Your task to perform on an android device: Open accessibility settings Image 0: 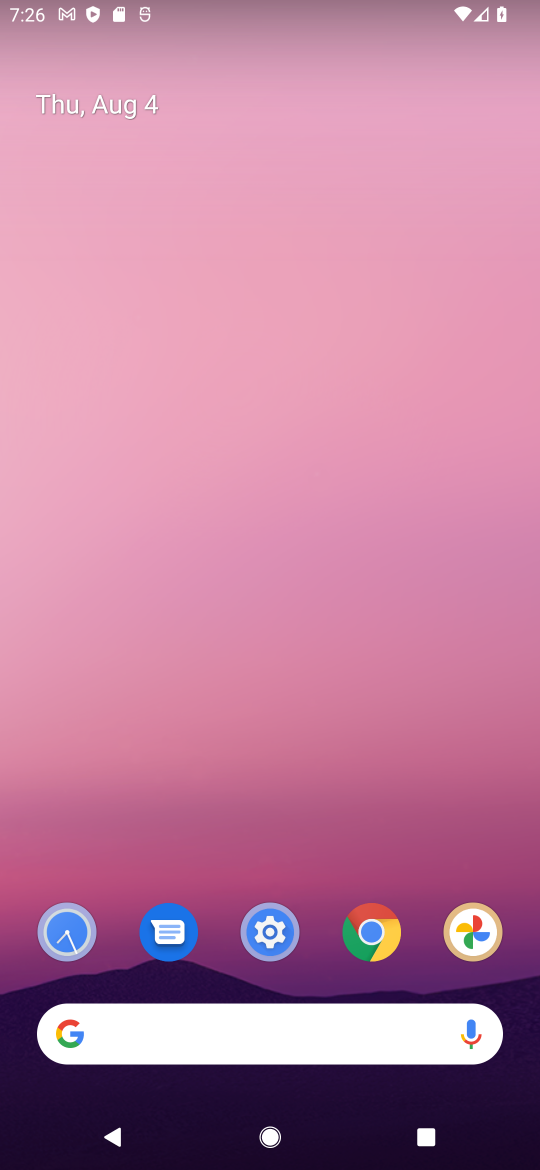
Step 0: press back button
Your task to perform on an android device: Open accessibility settings Image 1: 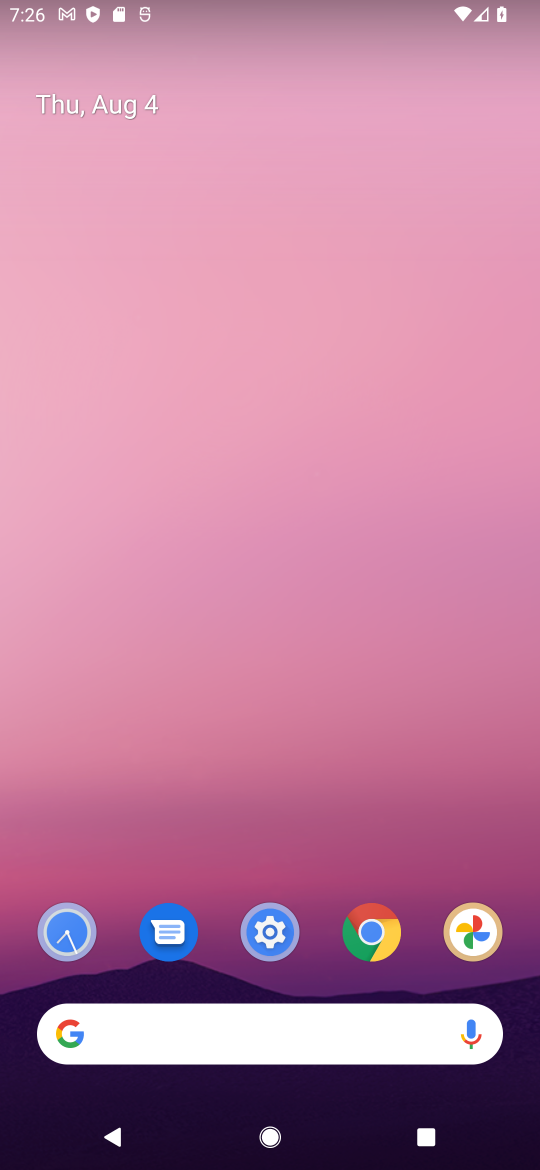
Step 1: drag from (228, 800) to (218, 245)
Your task to perform on an android device: Open accessibility settings Image 2: 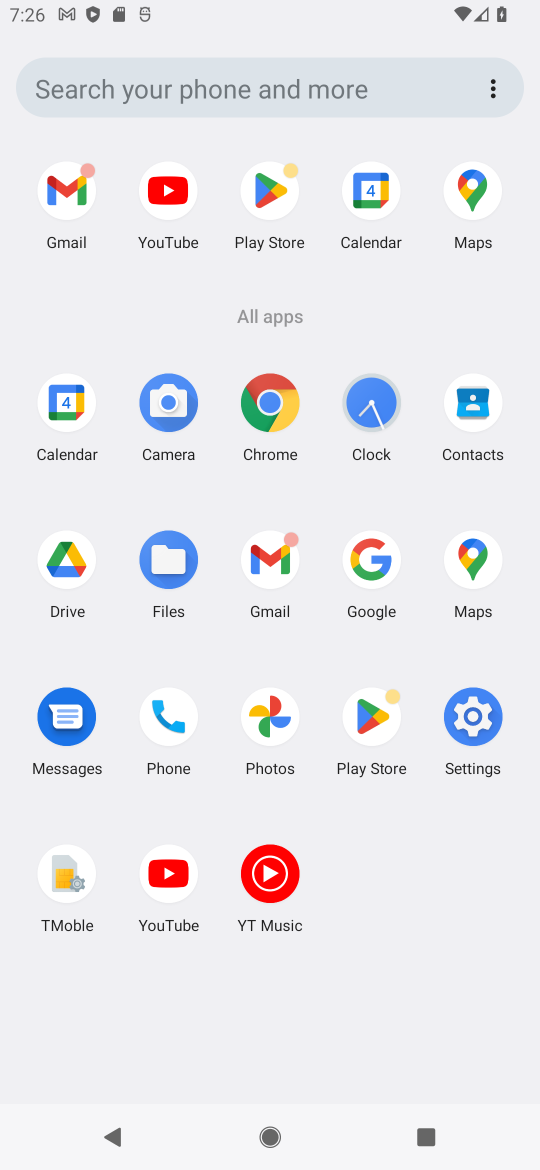
Step 2: click (473, 716)
Your task to perform on an android device: Open accessibility settings Image 3: 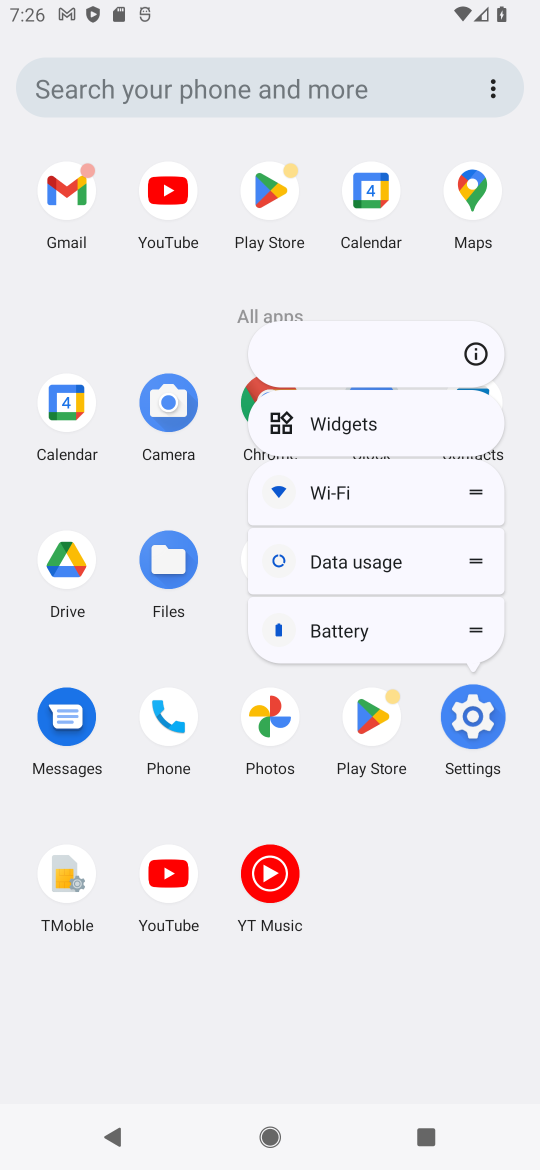
Step 3: click (471, 714)
Your task to perform on an android device: Open accessibility settings Image 4: 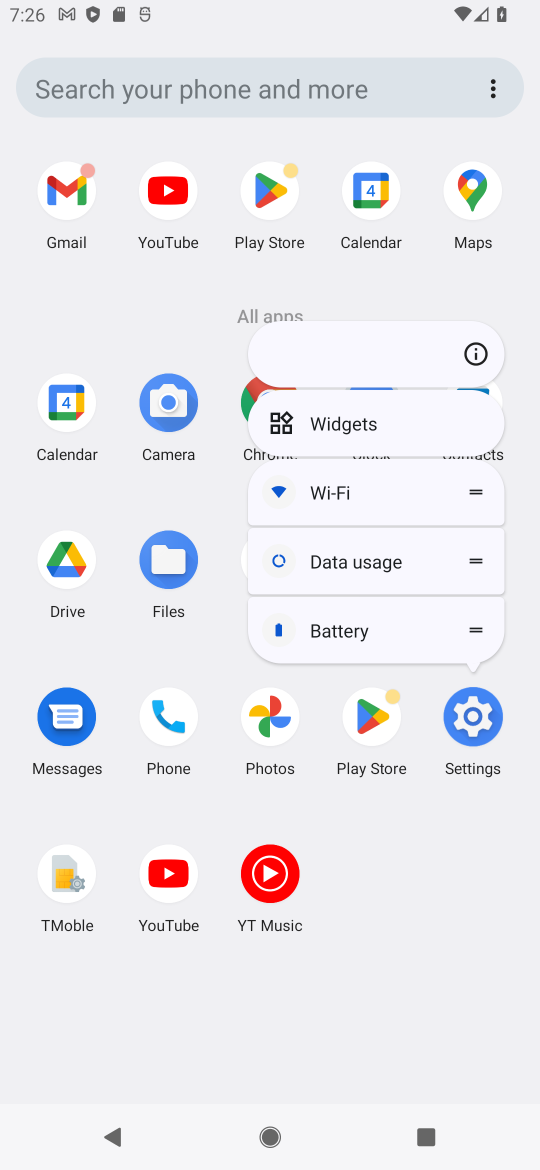
Step 4: click (471, 714)
Your task to perform on an android device: Open accessibility settings Image 5: 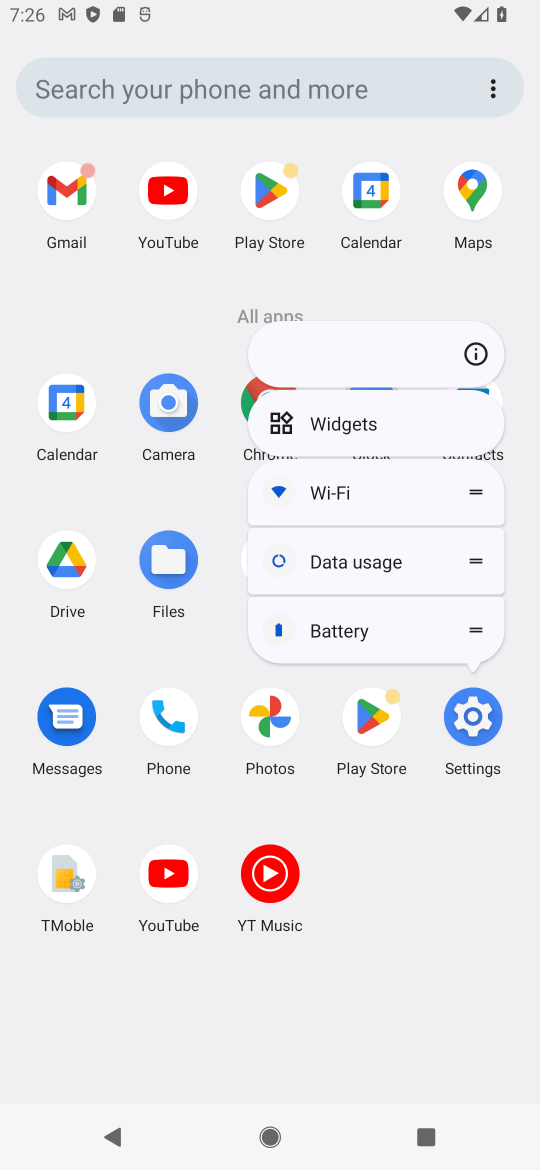
Step 5: click (366, 627)
Your task to perform on an android device: Open accessibility settings Image 6: 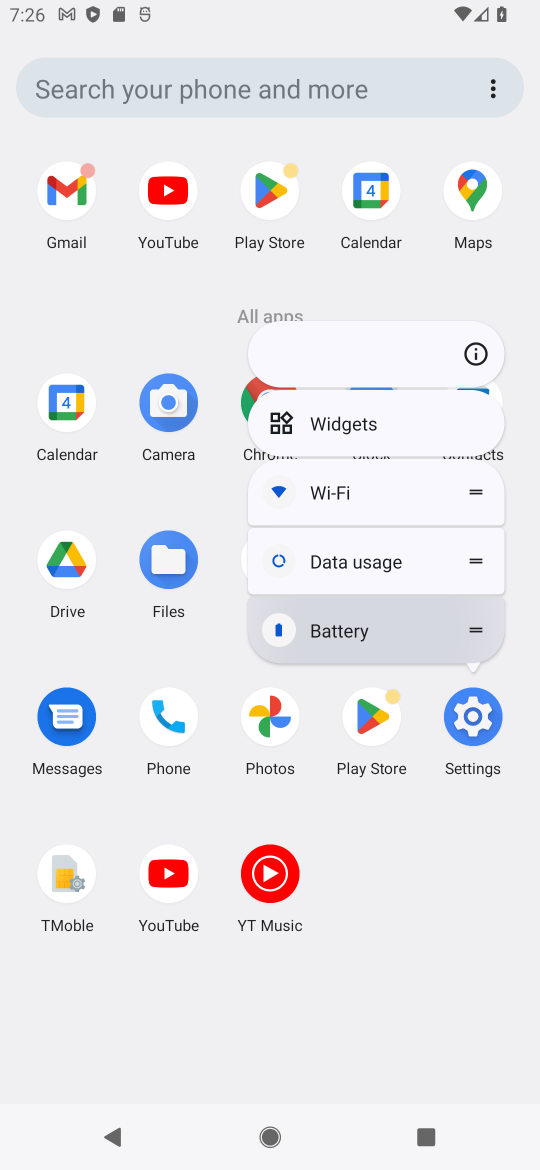
Step 6: click (366, 627)
Your task to perform on an android device: Open accessibility settings Image 7: 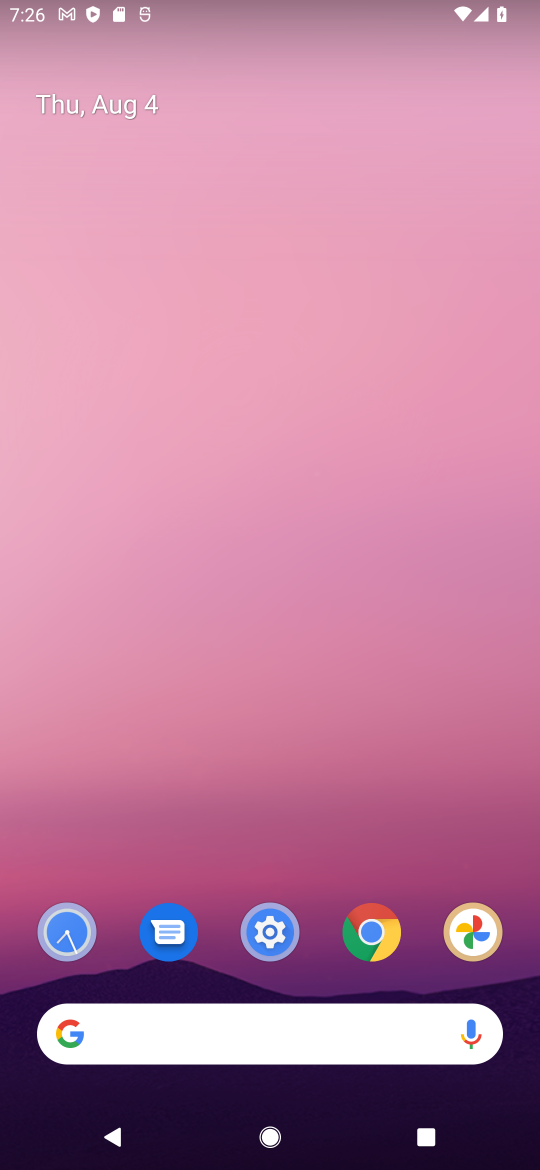
Step 7: drag from (281, 994) to (228, 55)
Your task to perform on an android device: Open accessibility settings Image 8: 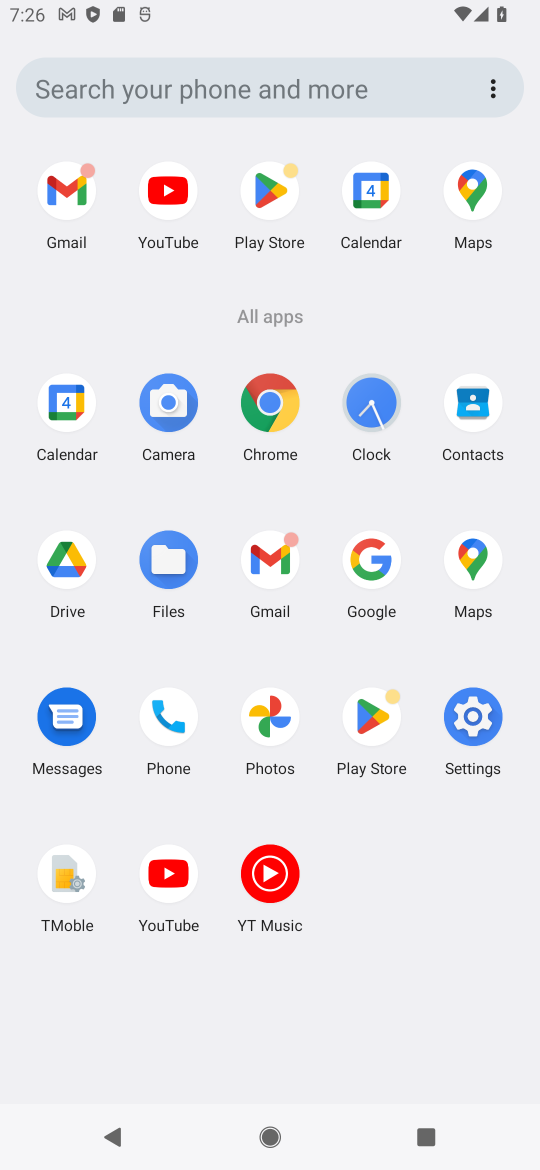
Step 8: click (478, 709)
Your task to perform on an android device: Open accessibility settings Image 9: 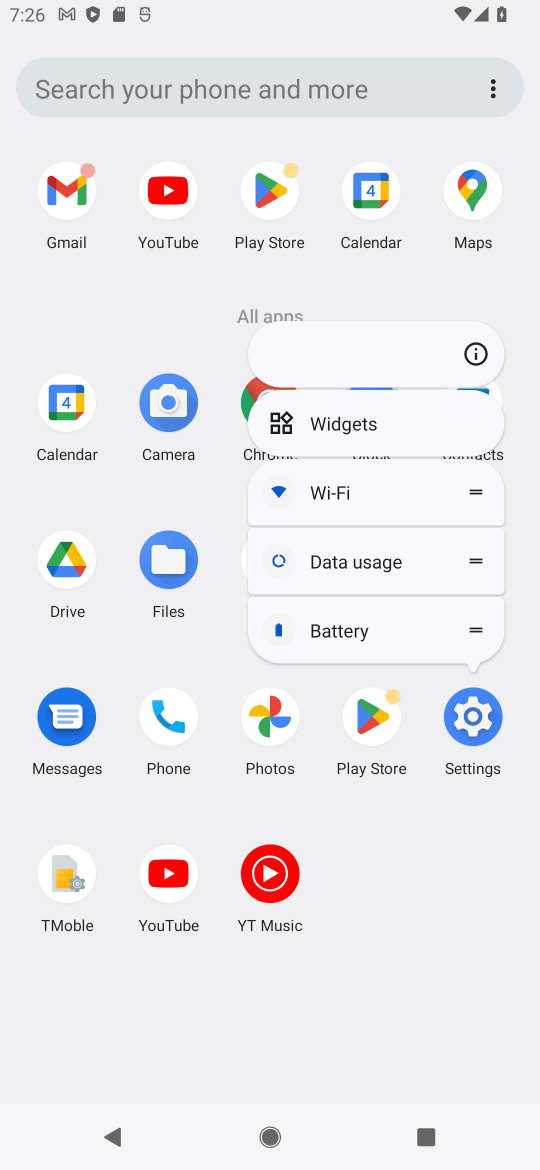
Step 9: click (468, 696)
Your task to perform on an android device: Open accessibility settings Image 10: 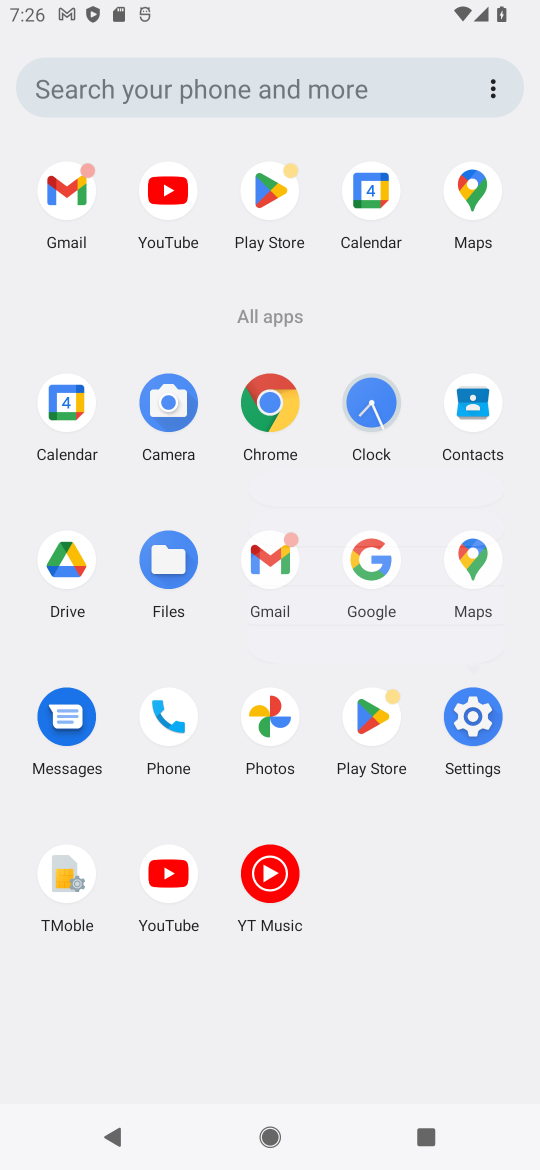
Step 10: click (467, 698)
Your task to perform on an android device: Open accessibility settings Image 11: 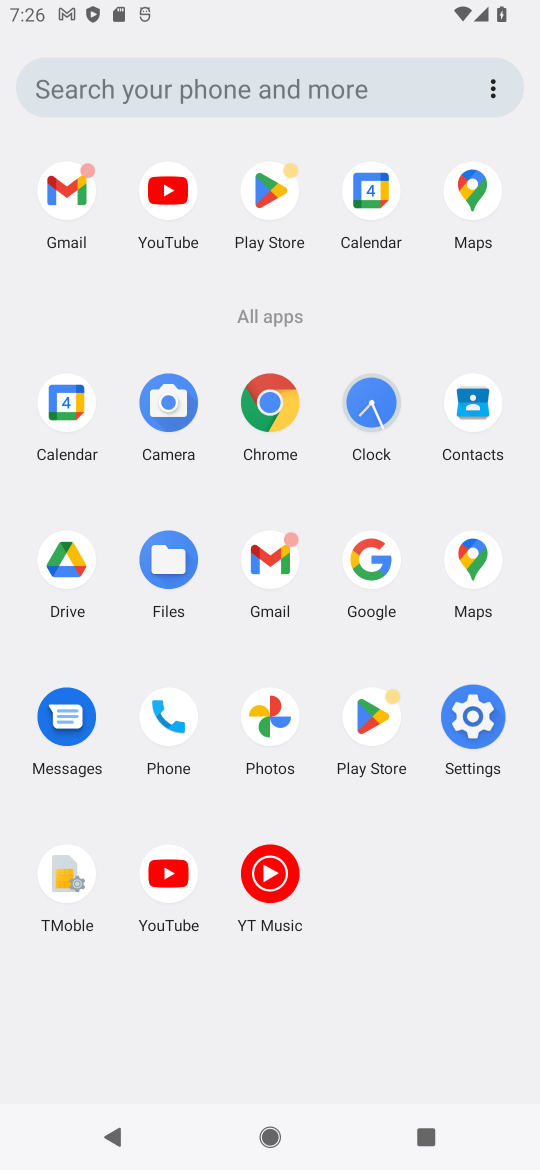
Step 11: click (467, 698)
Your task to perform on an android device: Open accessibility settings Image 12: 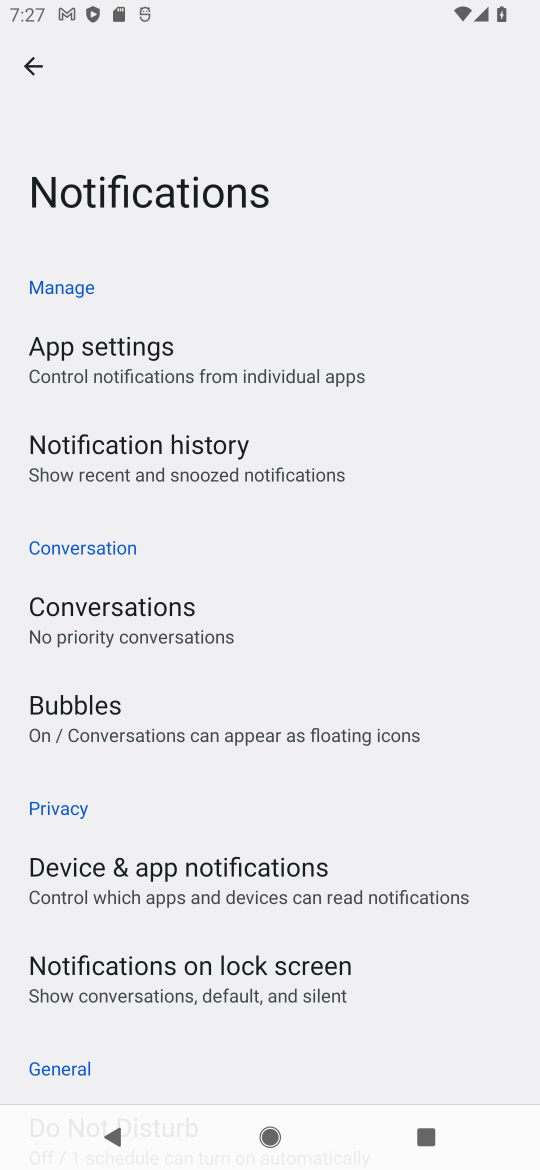
Step 12: click (35, 68)
Your task to perform on an android device: Open accessibility settings Image 13: 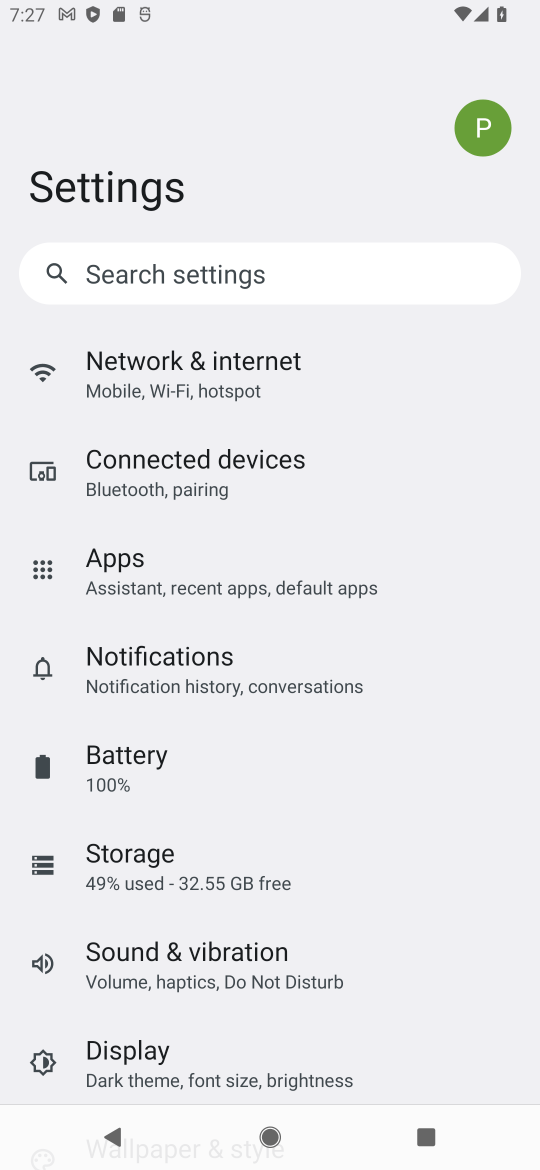
Step 13: drag from (192, 995) to (230, 444)
Your task to perform on an android device: Open accessibility settings Image 14: 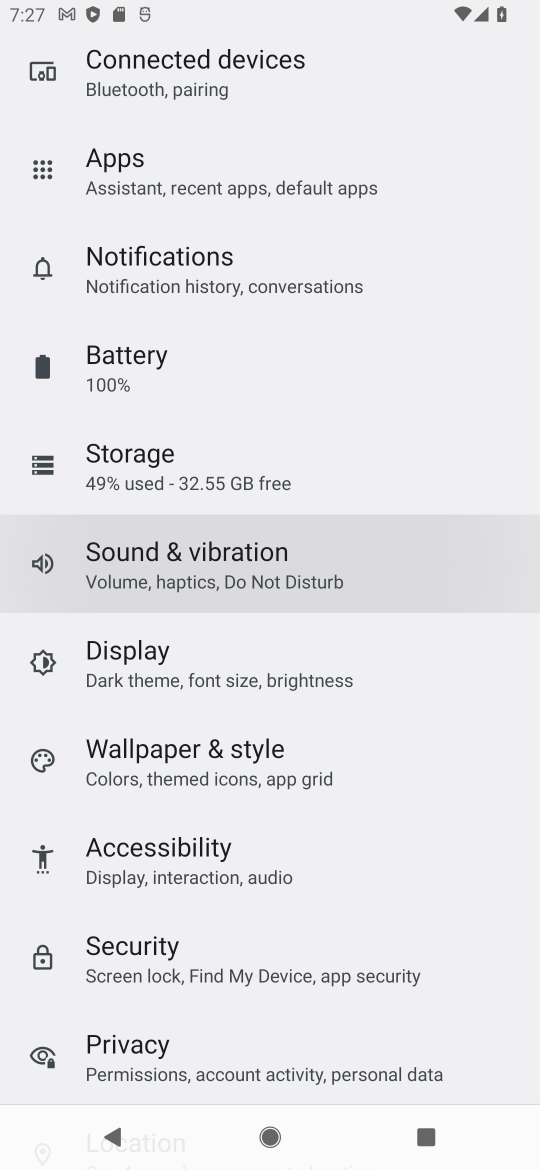
Step 14: drag from (291, 840) to (274, 326)
Your task to perform on an android device: Open accessibility settings Image 15: 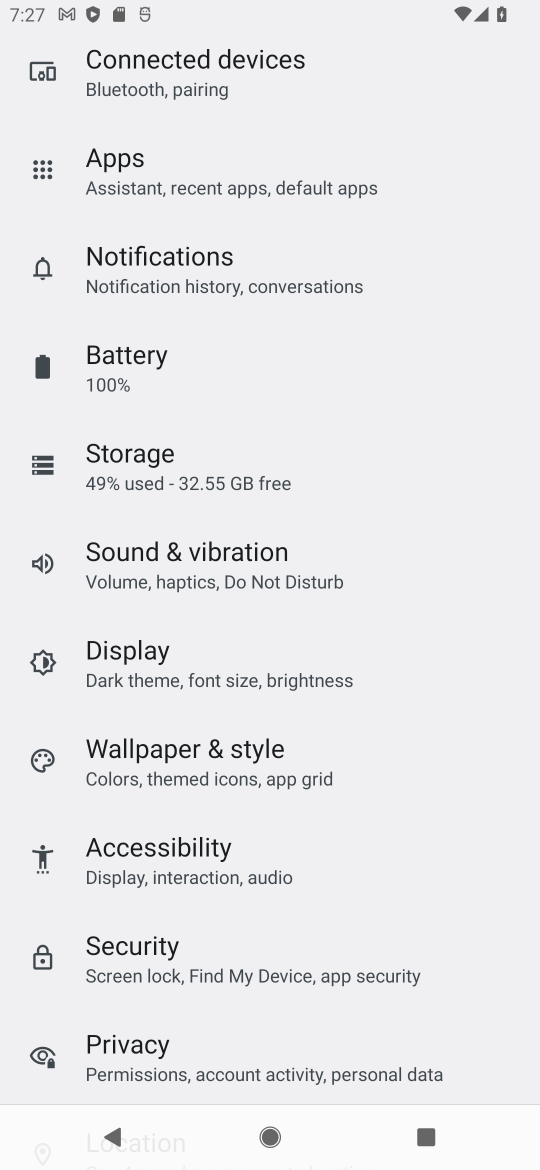
Step 15: click (139, 842)
Your task to perform on an android device: Open accessibility settings Image 16: 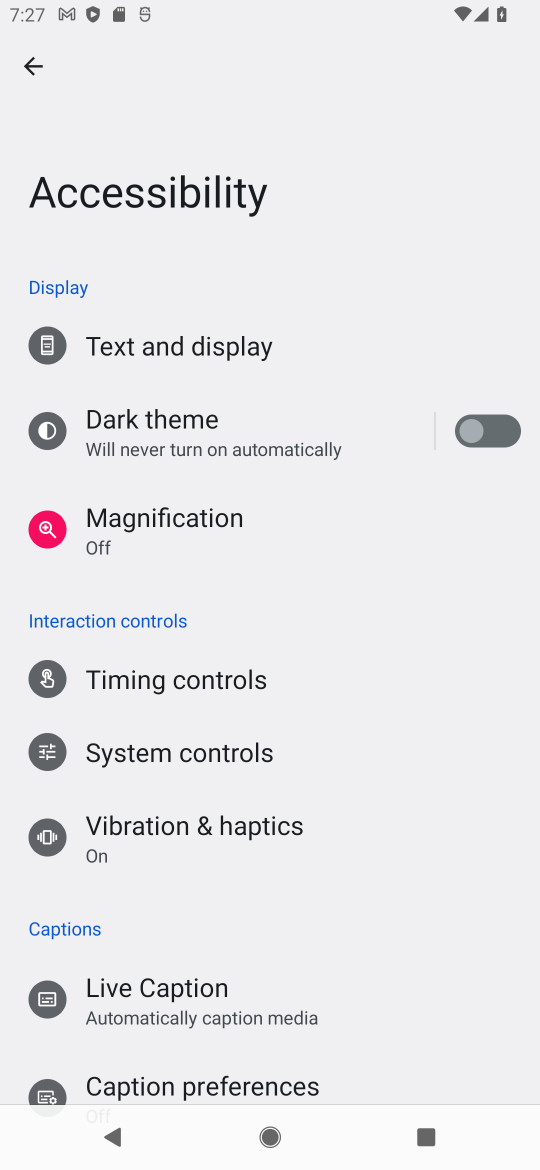
Step 16: click (179, 193)
Your task to perform on an android device: Open accessibility settings Image 17: 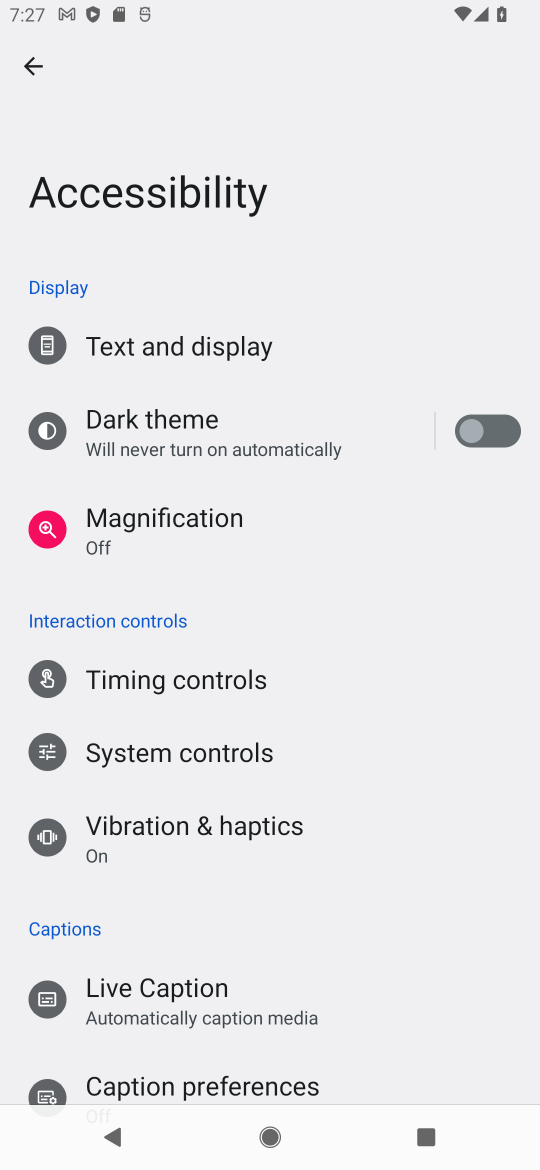
Step 17: task complete